Your task to perform on an android device: Open settings on Google Maps Image 0: 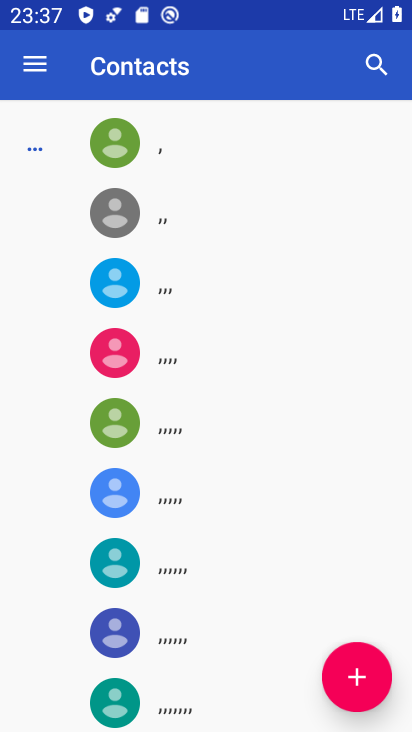
Step 0: press home button
Your task to perform on an android device: Open settings on Google Maps Image 1: 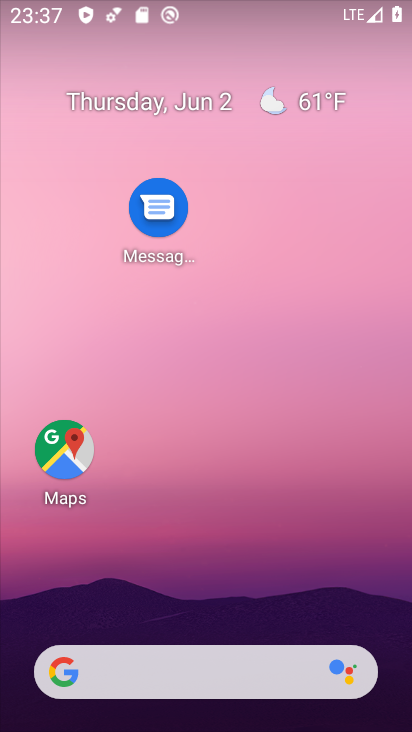
Step 1: drag from (202, 622) to (180, 31)
Your task to perform on an android device: Open settings on Google Maps Image 2: 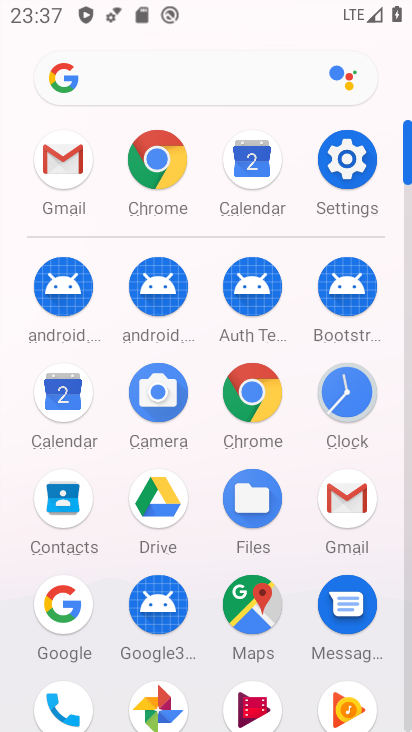
Step 2: click (254, 601)
Your task to perform on an android device: Open settings on Google Maps Image 3: 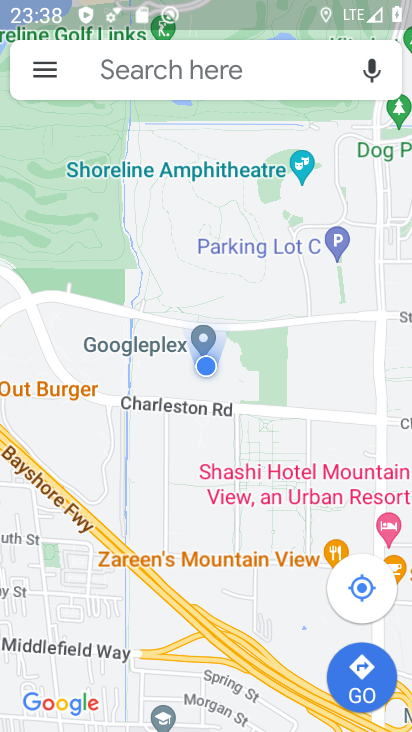
Step 3: click (33, 65)
Your task to perform on an android device: Open settings on Google Maps Image 4: 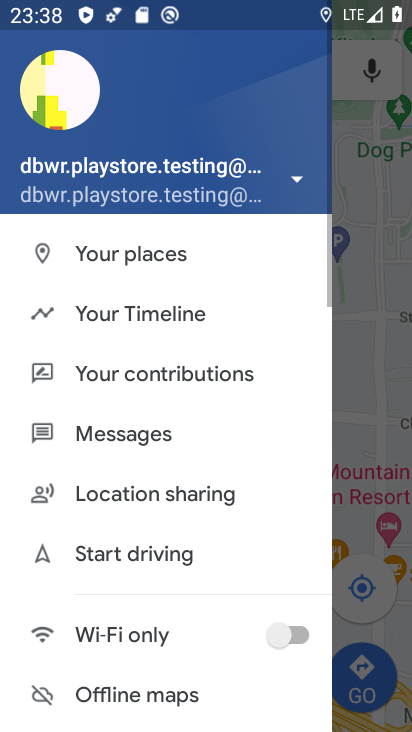
Step 4: drag from (161, 588) to (196, 69)
Your task to perform on an android device: Open settings on Google Maps Image 5: 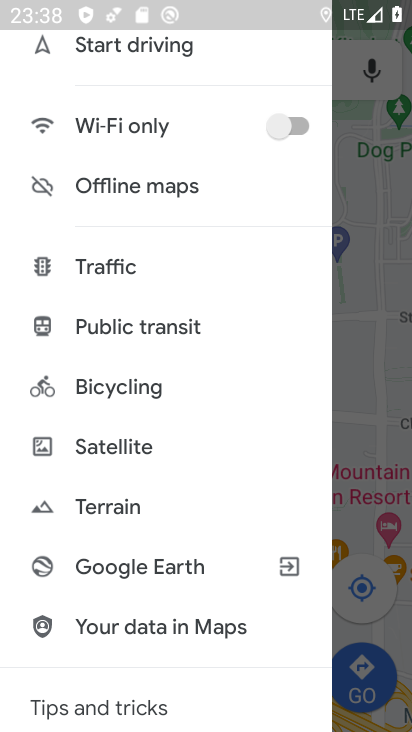
Step 5: drag from (124, 641) to (139, 176)
Your task to perform on an android device: Open settings on Google Maps Image 6: 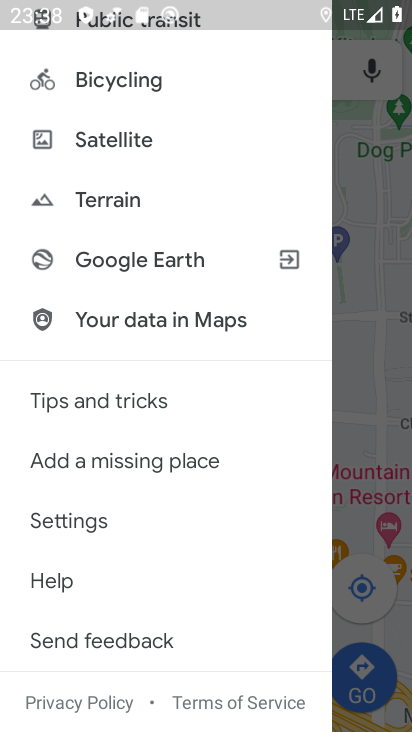
Step 6: click (98, 517)
Your task to perform on an android device: Open settings on Google Maps Image 7: 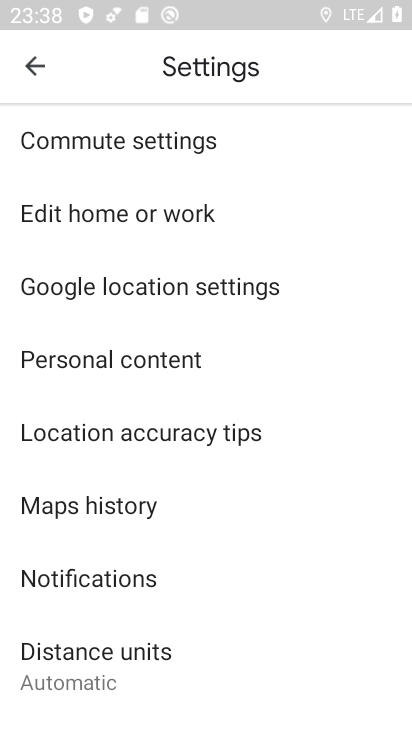
Step 7: task complete